Your task to perform on an android device: snooze an email in the gmail app Image 0: 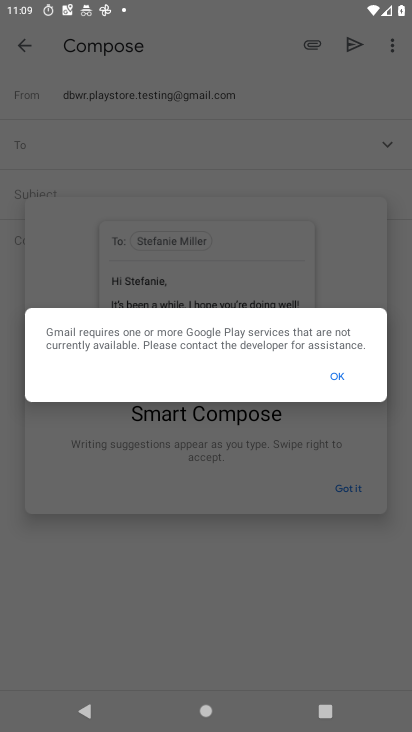
Step 0: click (346, 373)
Your task to perform on an android device: snooze an email in the gmail app Image 1: 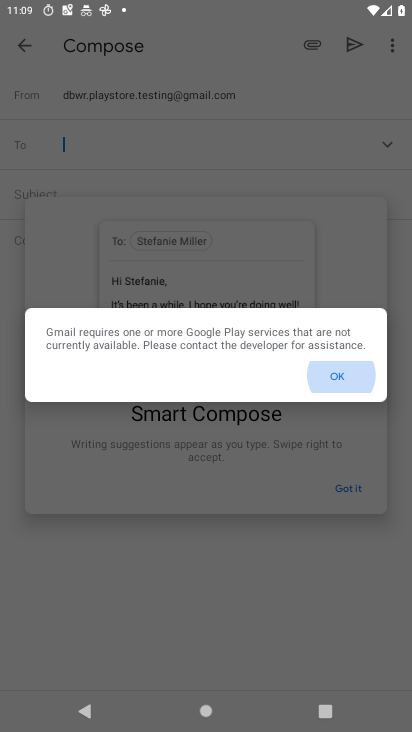
Step 1: click (350, 371)
Your task to perform on an android device: snooze an email in the gmail app Image 2: 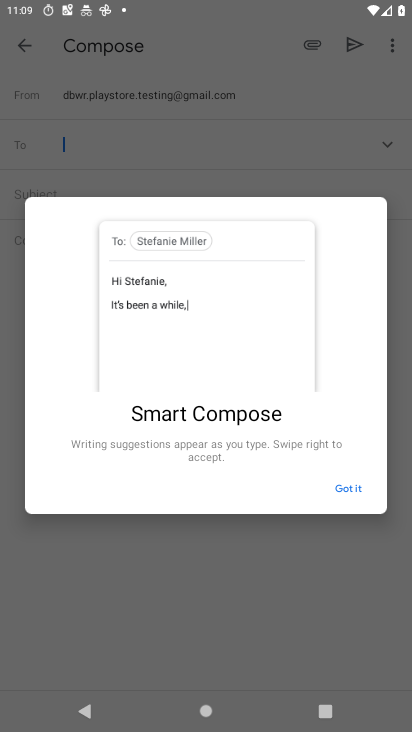
Step 2: click (352, 487)
Your task to perform on an android device: snooze an email in the gmail app Image 3: 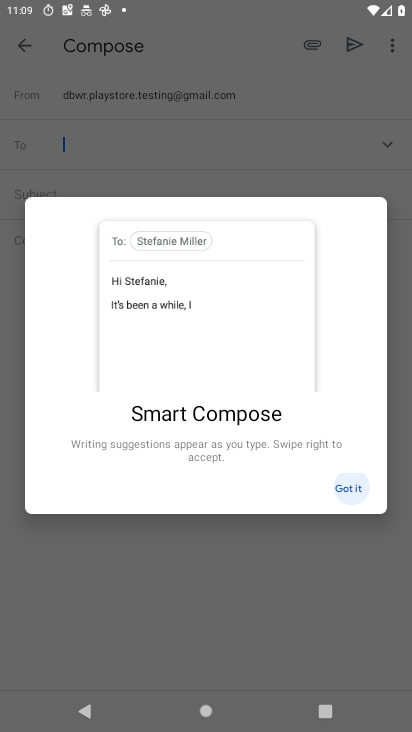
Step 3: click (352, 487)
Your task to perform on an android device: snooze an email in the gmail app Image 4: 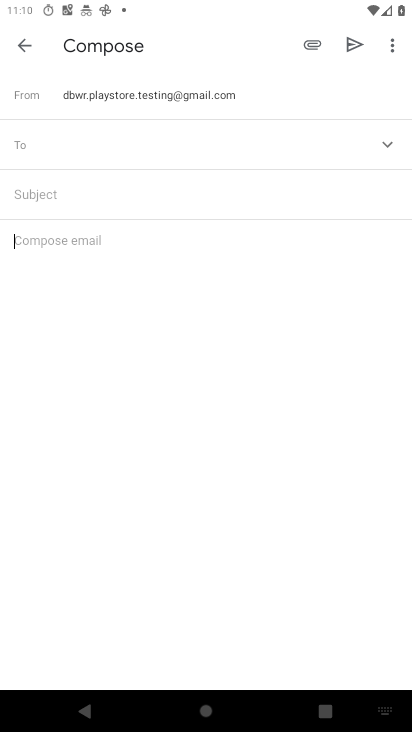
Step 4: click (24, 53)
Your task to perform on an android device: snooze an email in the gmail app Image 5: 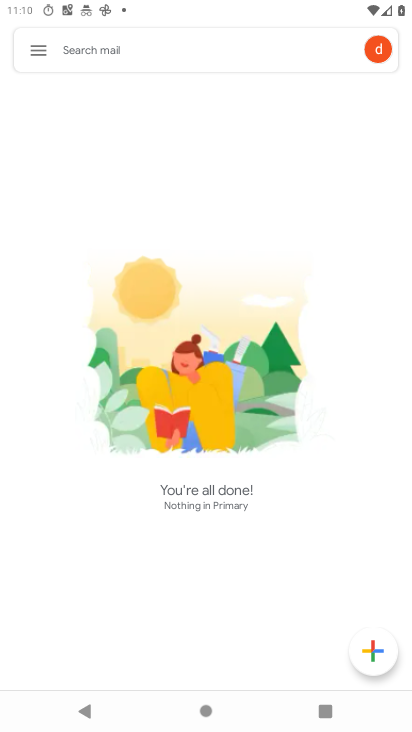
Step 5: press back button
Your task to perform on an android device: snooze an email in the gmail app Image 6: 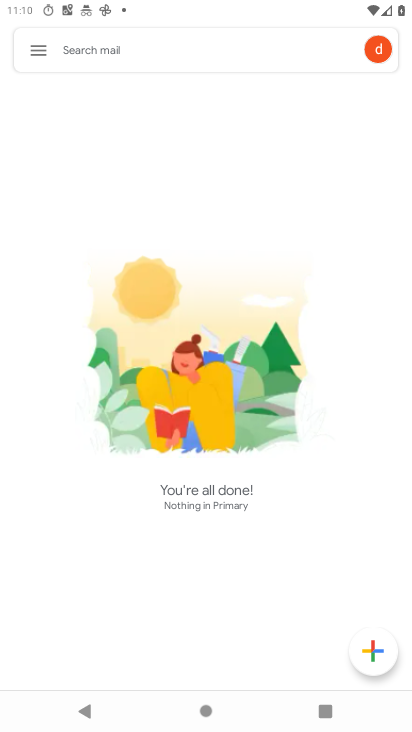
Step 6: press back button
Your task to perform on an android device: snooze an email in the gmail app Image 7: 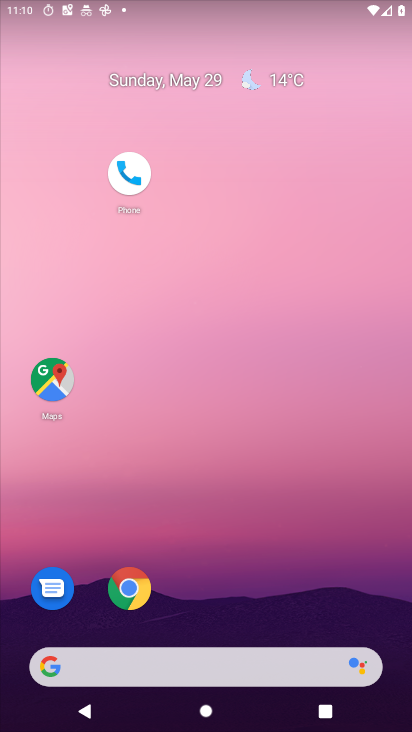
Step 7: drag from (248, 700) to (226, 145)
Your task to perform on an android device: snooze an email in the gmail app Image 8: 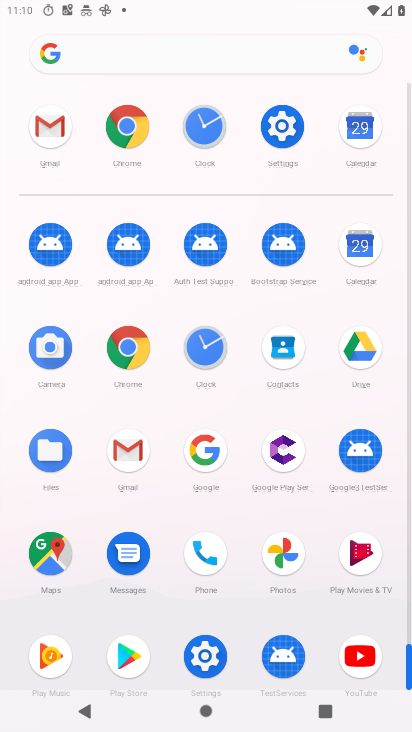
Step 8: click (130, 452)
Your task to perform on an android device: snooze an email in the gmail app Image 9: 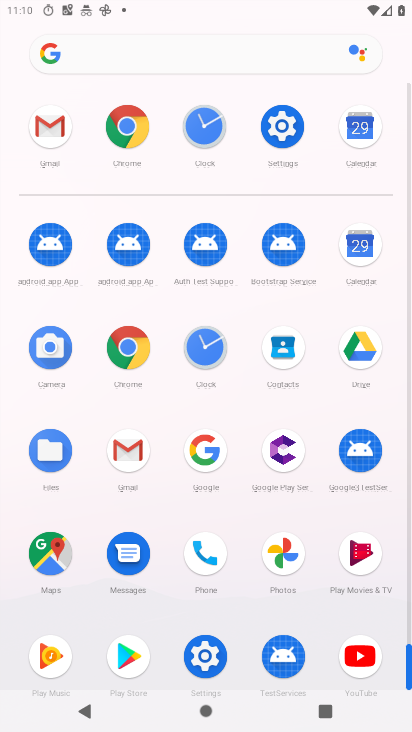
Step 9: click (130, 452)
Your task to perform on an android device: snooze an email in the gmail app Image 10: 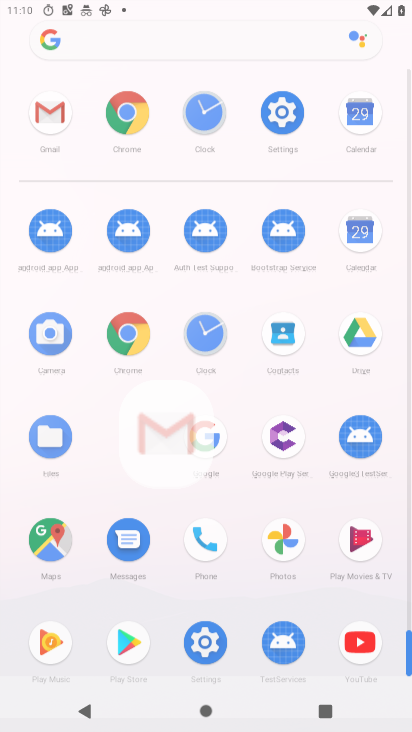
Step 10: click (130, 452)
Your task to perform on an android device: snooze an email in the gmail app Image 11: 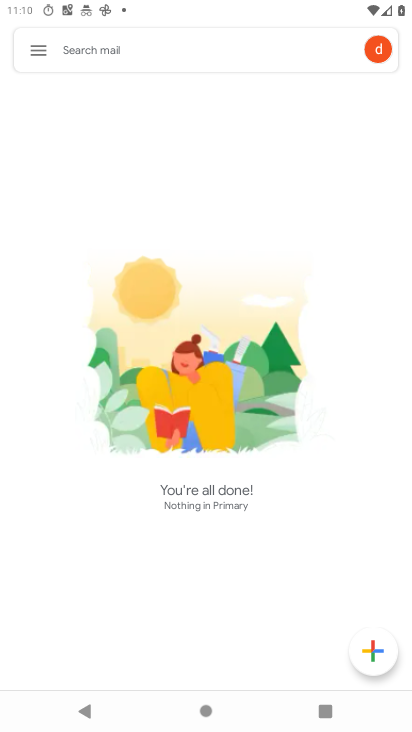
Step 11: click (40, 56)
Your task to perform on an android device: snooze an email in the gmail app Image 12: 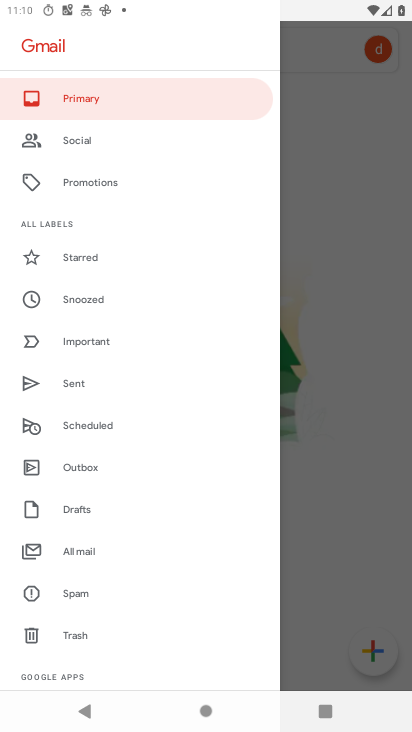
Step 12: click (86, 551)
Your task to perform on an android device: snooze an email in the gmail app Image 13: 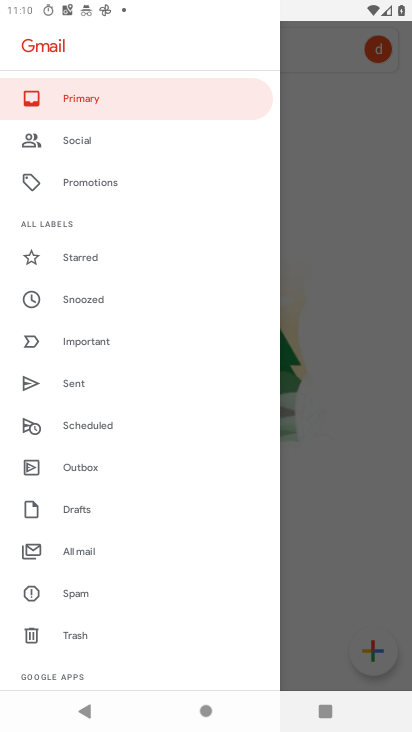
Step 13: click (86, 552)
Your task to perform on an android device: snooze an email in the gmail app Image 14: 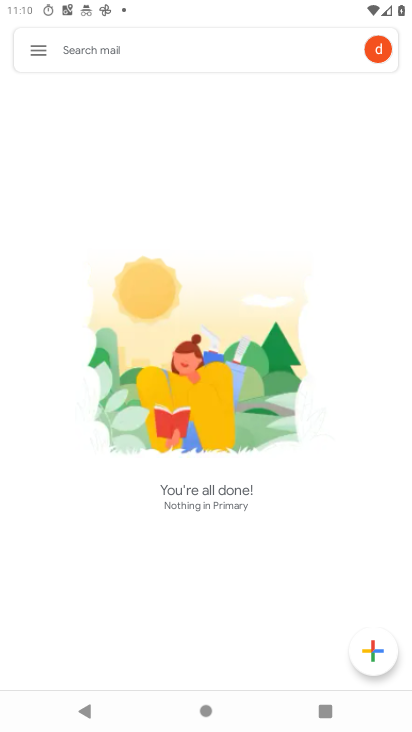
Step 14: click (90, 534)
Your task to perform on an android device: snooze an email in the gmail app Image 15: 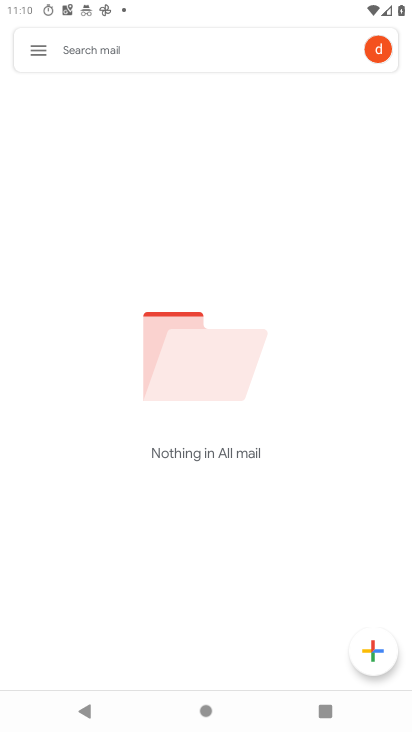
Step 15: task complete